Your task to perform on an android device: View the shopping cart on walmart.com. Add "usb-b" to the cart on walmart.com Image 0: 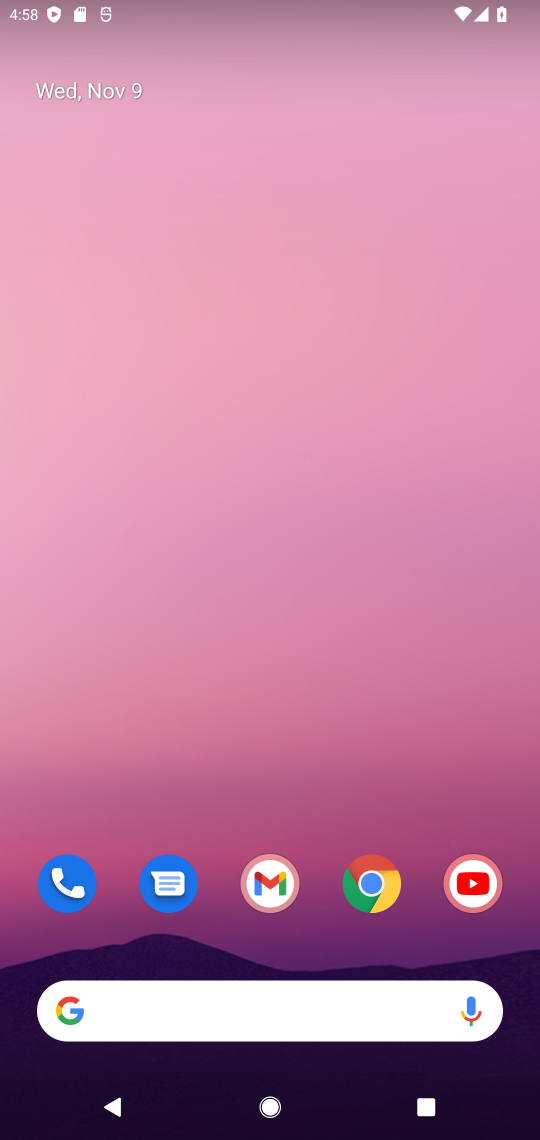
Step 0: click (375, 905)
Your task to perform on an android device: View the shopping cart on walmart.com. Add "usb-b" to the cart on walmart.com Image 1: 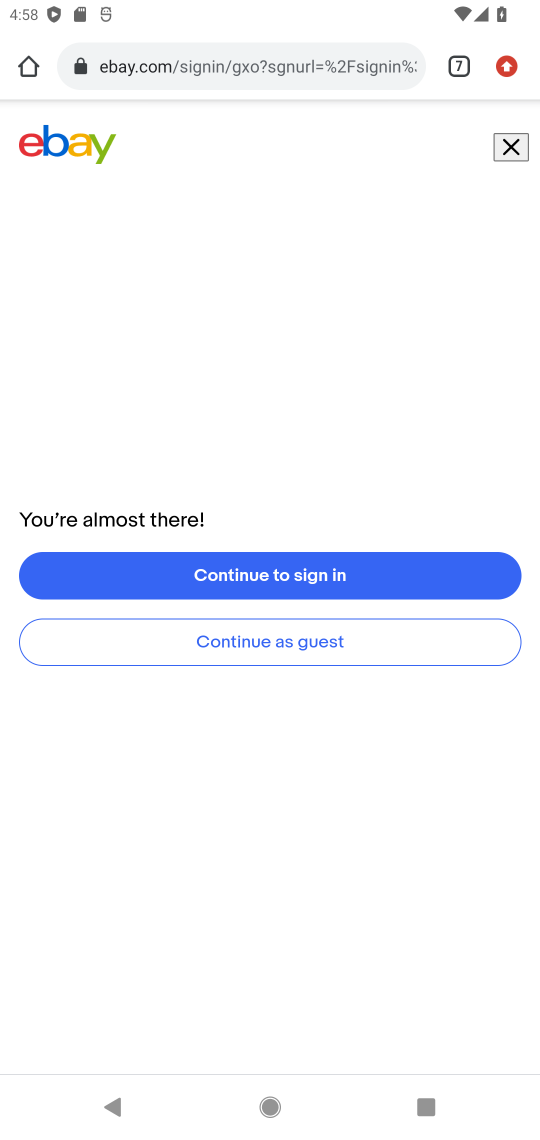
Step 1: click (459, 69)
Your task to perform on an android device: View the shopping cart on walmart.com. Add "usb-b" to the cart on walmart.com Image 2: 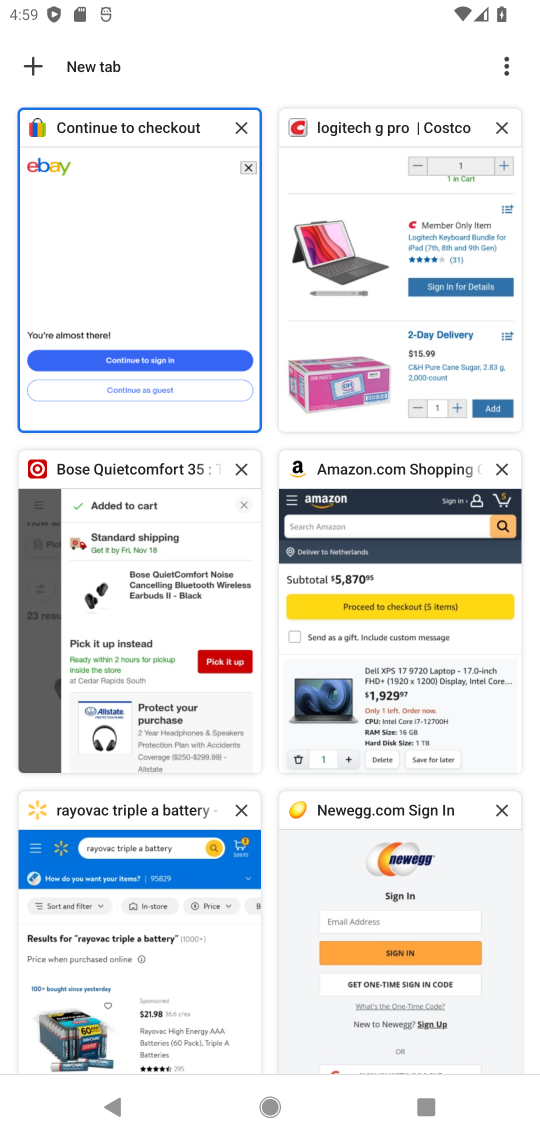
Step 2: click (98, 910)
Your task to perform on an android device: View the shopping cart on walmart.com. Add "usb-b" to the cart on walmart.com Image 3: 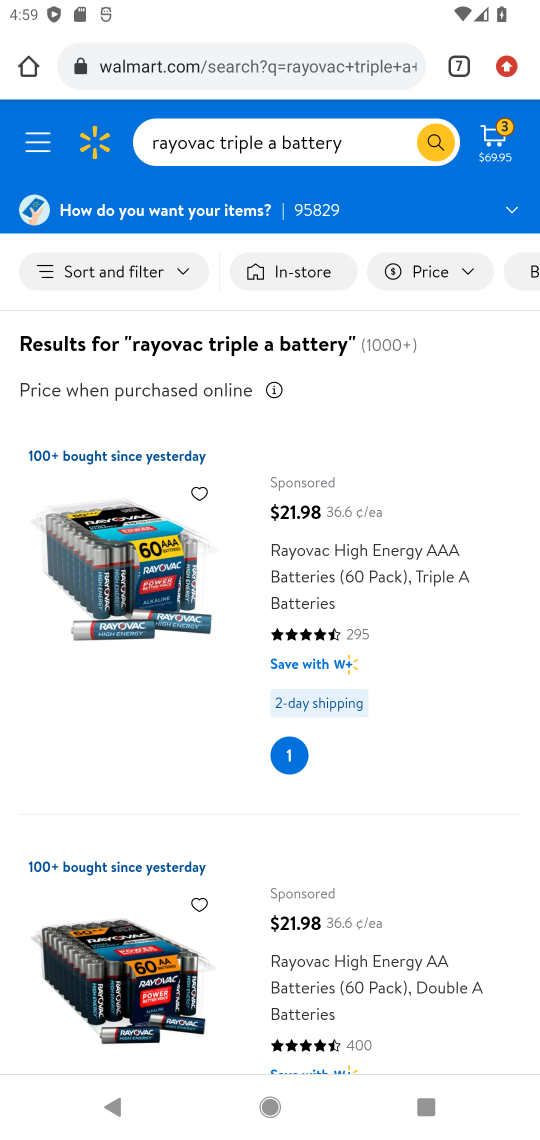
Step 3: click (506, 137)
Your task to perform on an android device: View the shopping cart on walmart.com. Add "usb-b" to the cart on walmart.com Image 4: 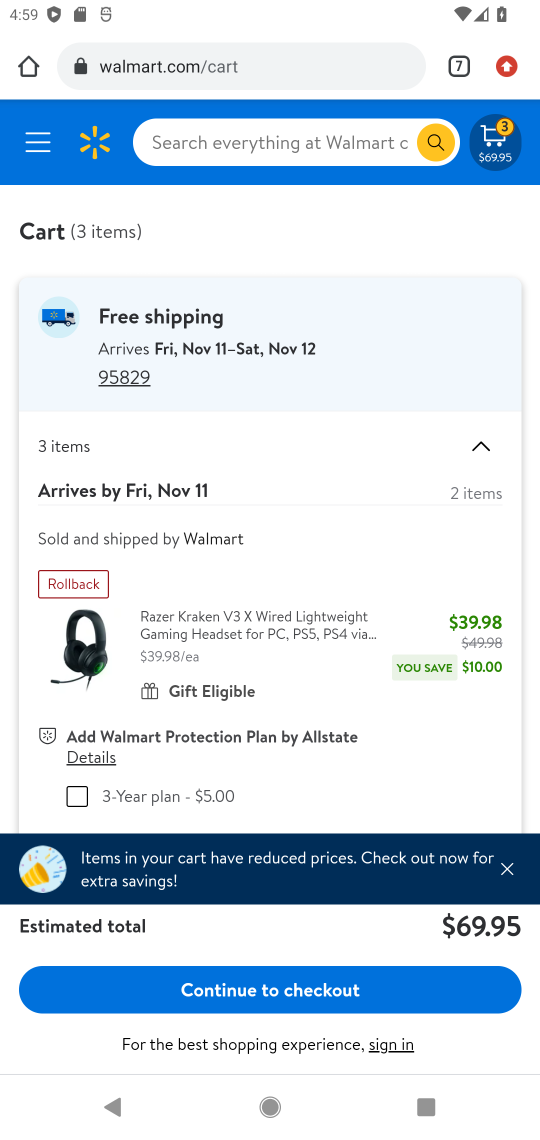
Step 4: click (253, 147)
Your task to perform on an android device: View the shopping cart on walmart.com. Add "usb-b" to the cart on walmart.com Image 5: 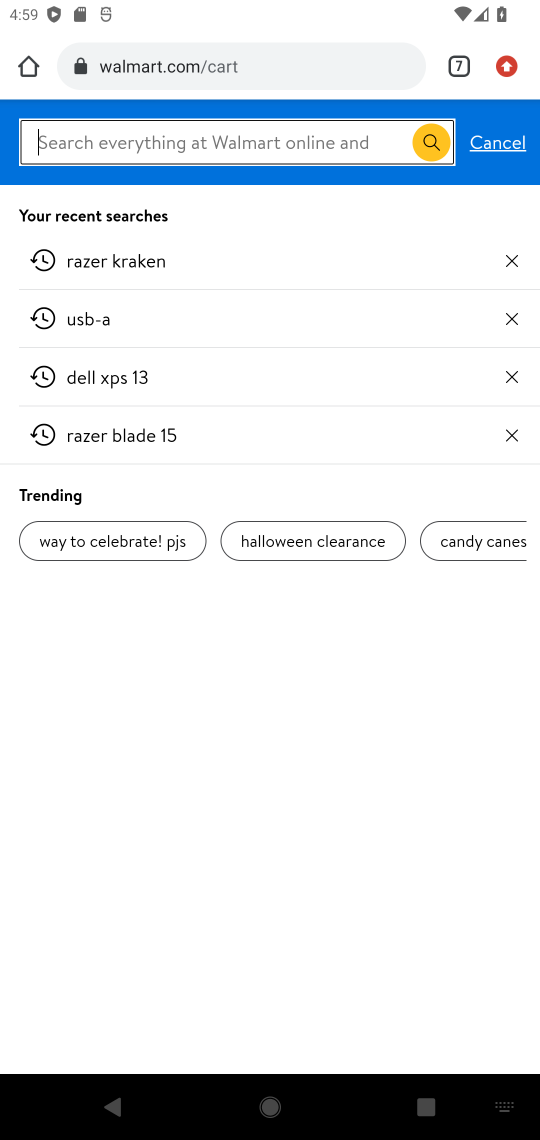
Step 5: type "usb-b"
Your task to perform on an android device: View the shopping cart on walmart.com. Add "usb-b" to the cart on walmart.com Image 6: 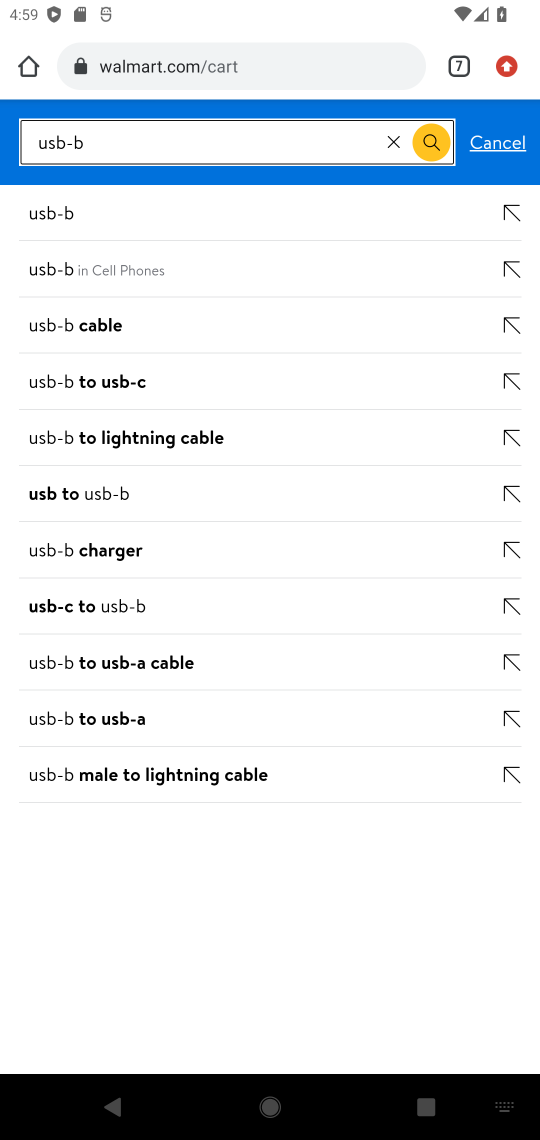
Step 6: click (56, 265)
Your task to perform on an android device: View the shopping cart on walmart.com. Add "usb-b" to the cart on walmart.com Image 7: 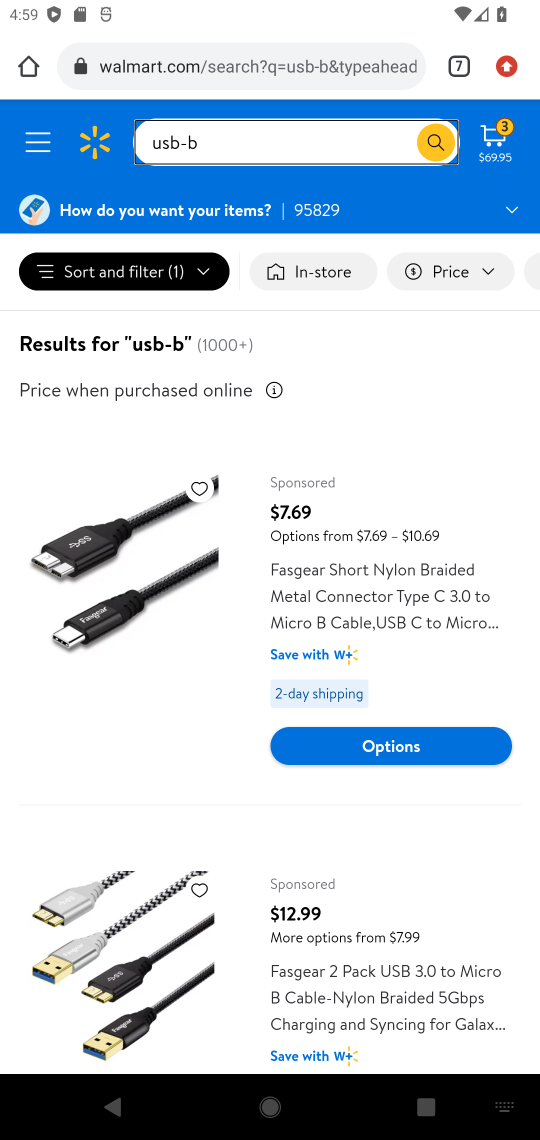
Step 7: drag from (431, 950) to (486, 492)
Your task to perform on an android device: View the shopping cart on walmart.com. Add "usb-b" to the cart on walmart.com Image 8: 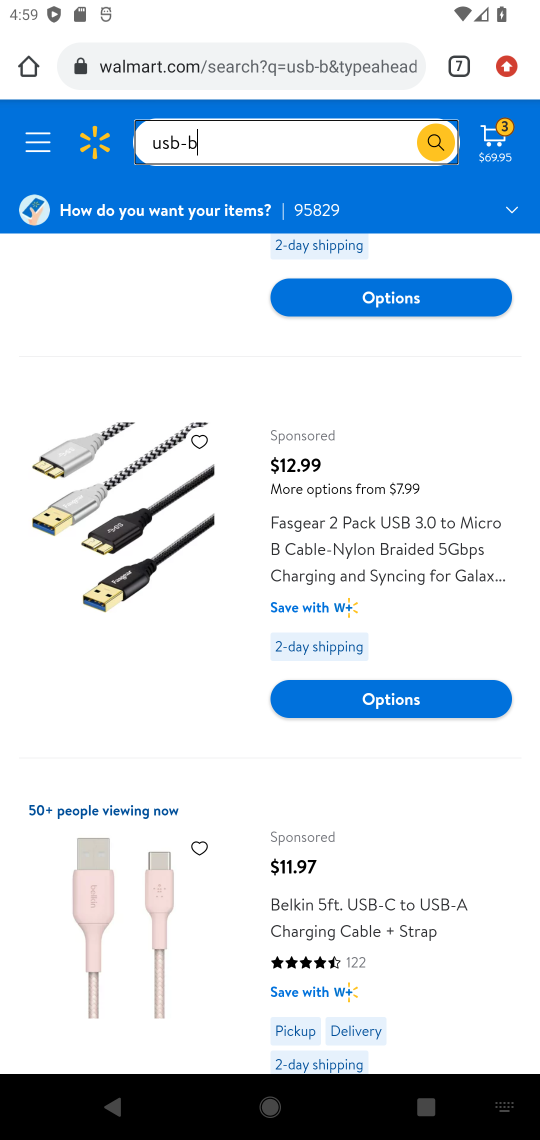
Step 8: click (351, 909)
Your task to perform on an android device: View the shopping cart on walmart.com. Add "usb-b" to the cart on walmart.com Image 9: 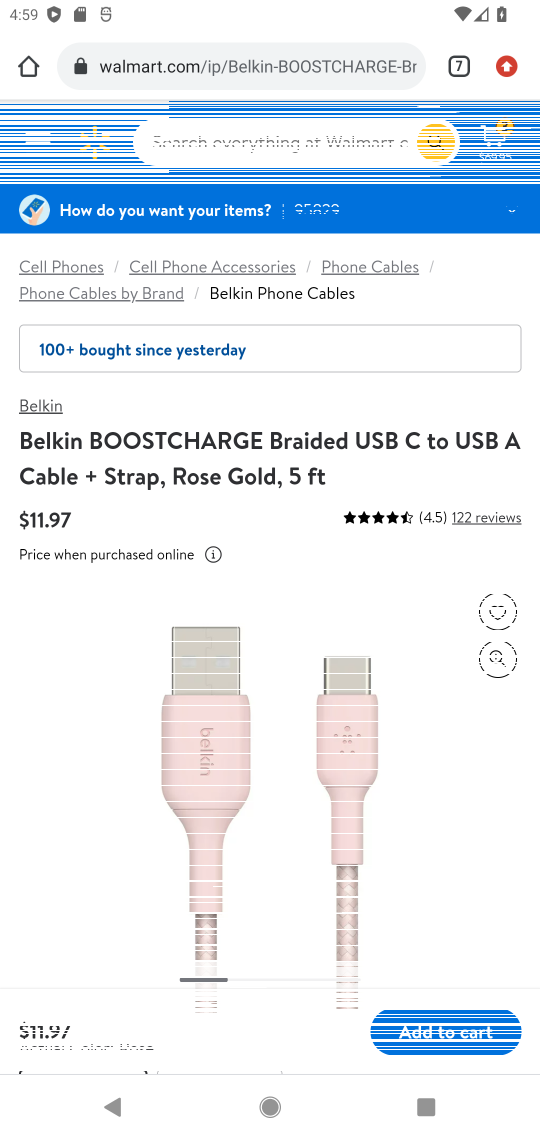
Step 9: click (453, 1026)
Your task to perform on an android device: View the shopping cart on walmart.com. Add "usb-b" to the cart on walmart.com Image 10: 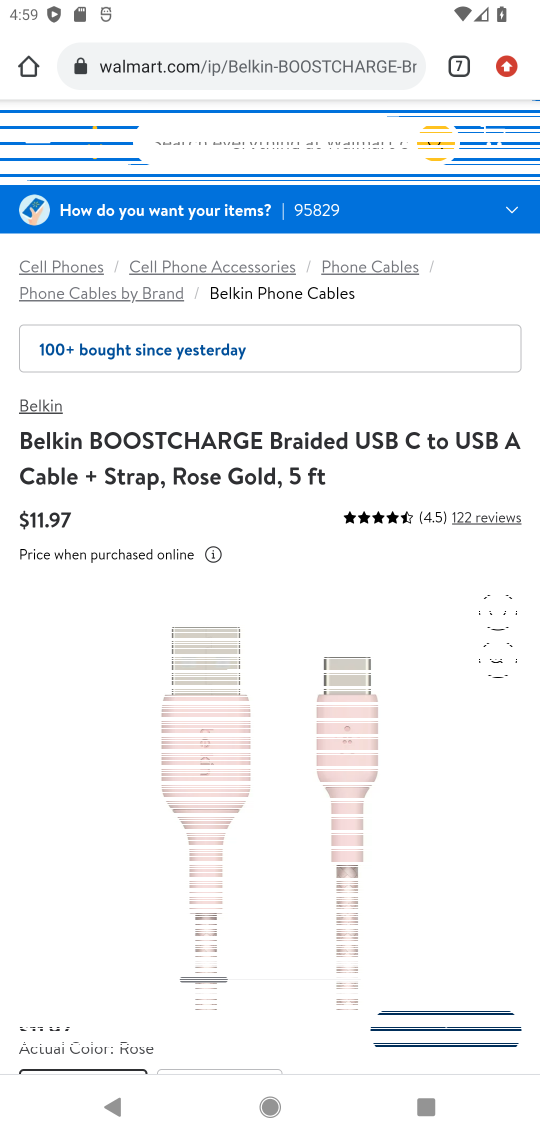
Step 10: click (453, 1026)
Your task to perform on an android device: View the shopping cart on walmart.com. Add "usb-b" to the cart on walmart.com Image 11: 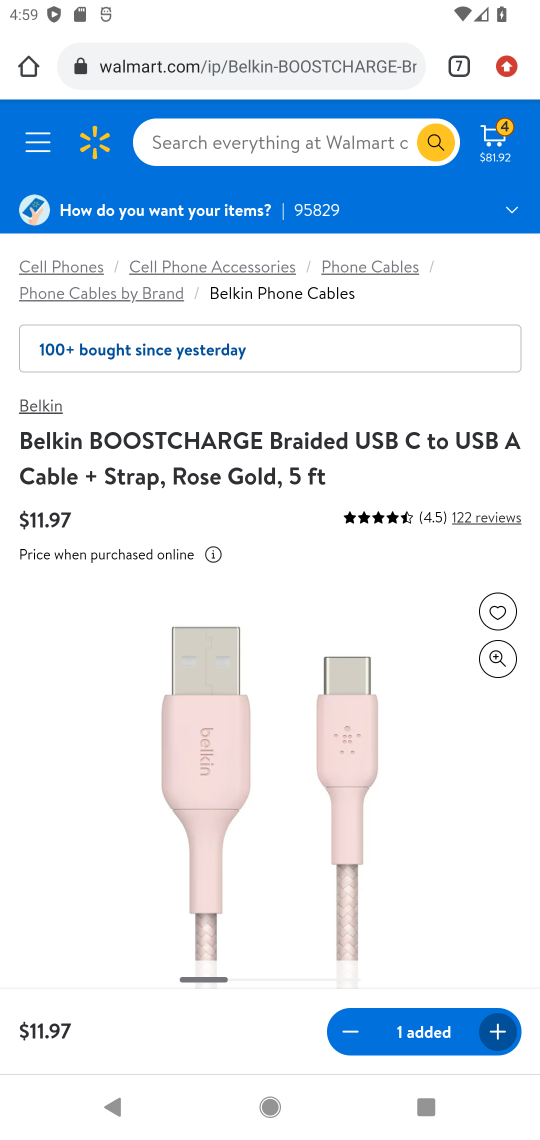
Step 11: click (453, 1026)
Your task to perform on an android device: View the shopping cart on walmart.com. Add "usb-b" to the cart on walmart.com Image 12: 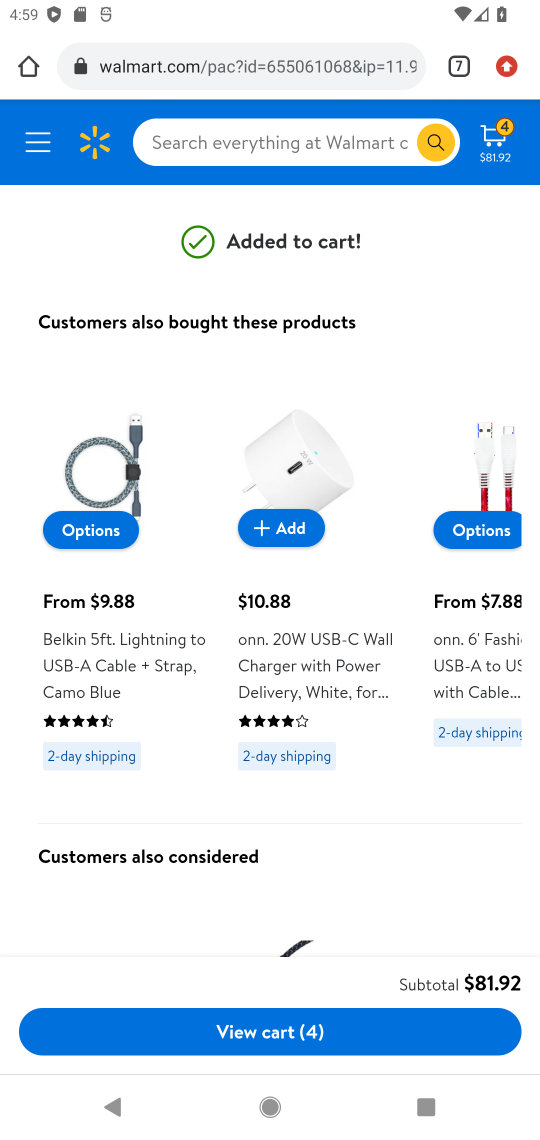
Step 12: task complete